Your task to perform on an android device: Add usb-c to the cart on walmart, then select checkout. Image 0: 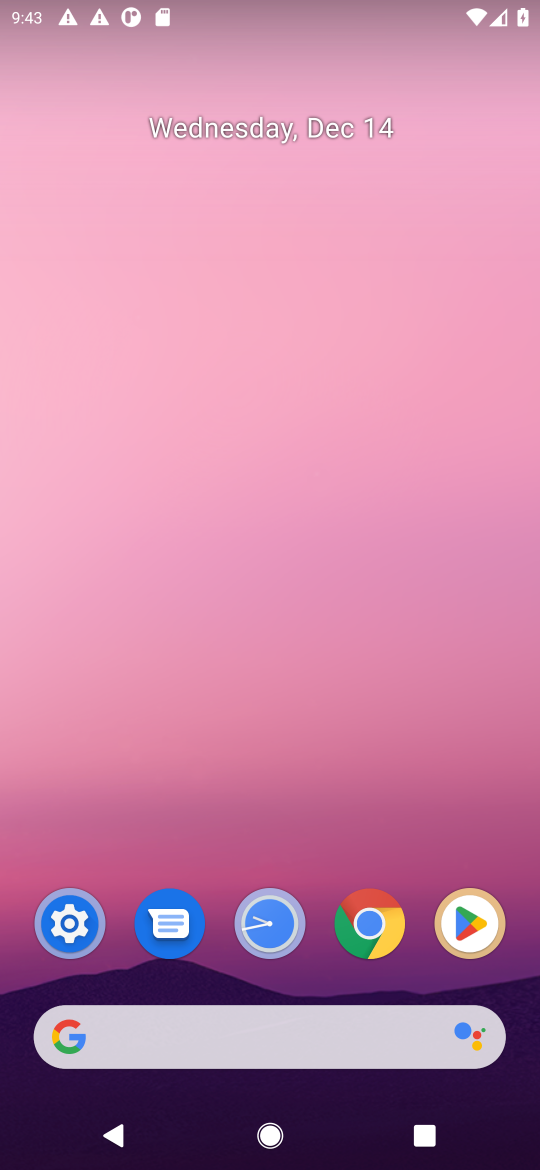
Step 0: click (368, 934)
Your task to perform on an android device: Add usb-c to the cart on walmart, then select checkout. Image 1: 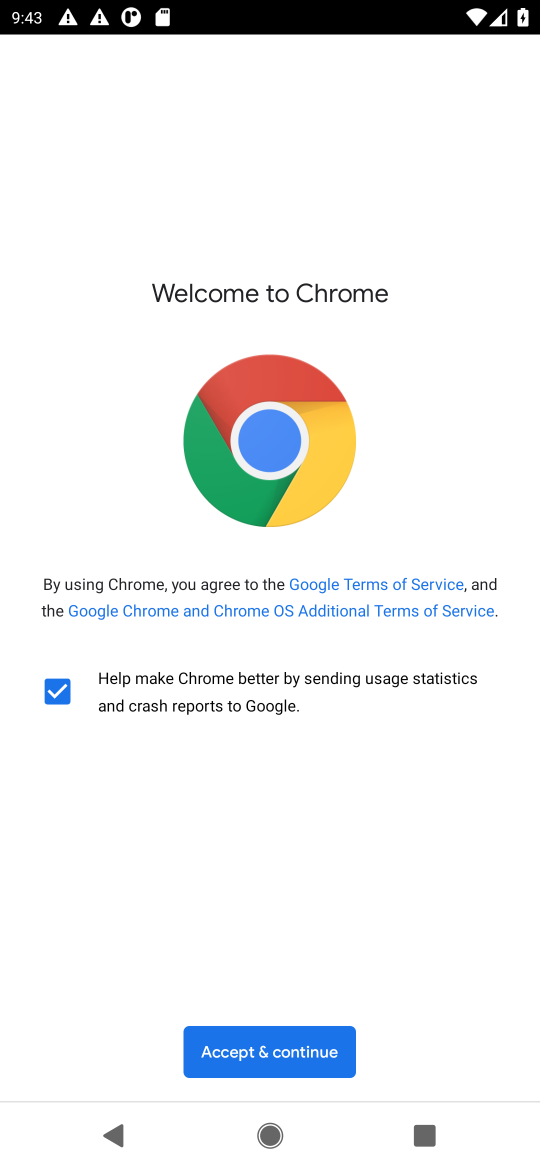
Step 1: click (226, 1065)
Your task to perform on an android device: Add usb-c to the cart on walmart, then select checkout. Image 2: 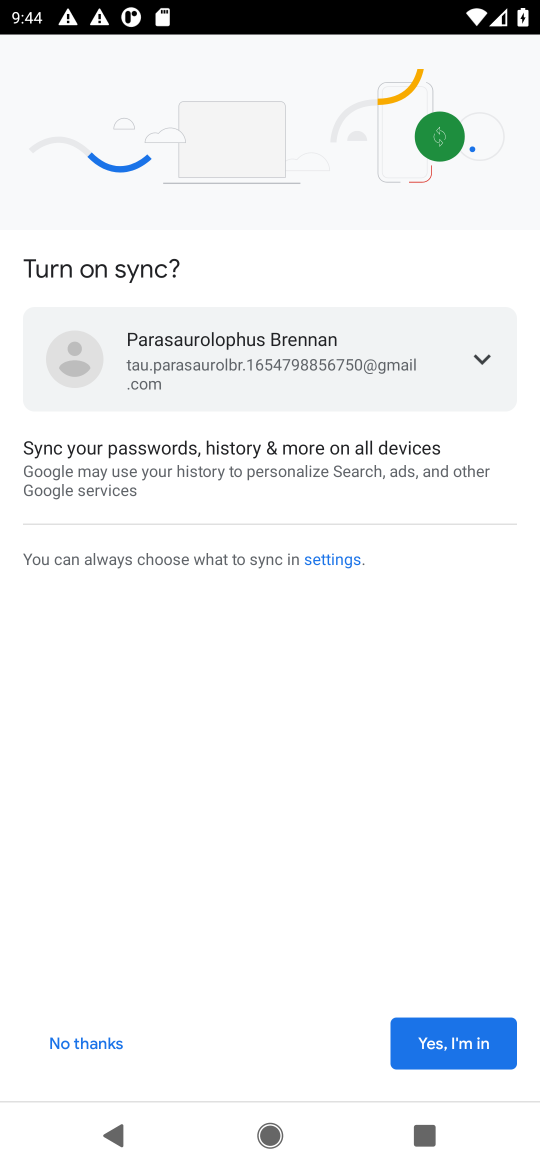
Step 2: click (102, 1040)
Your task to perform on an android device: Add usb-c to the cart on walmart, then select checkout. Image 3: 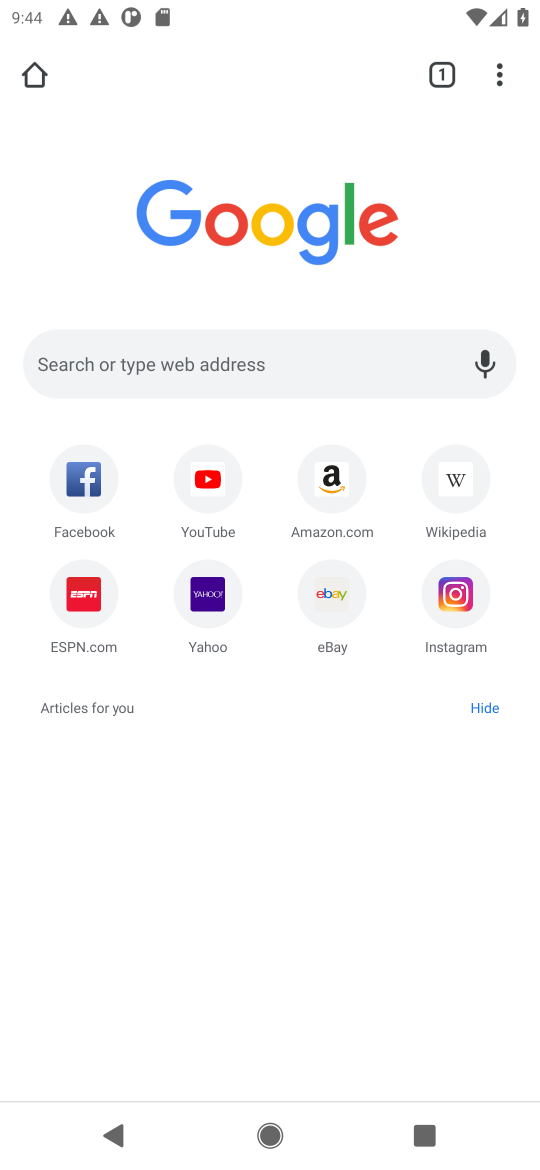
Step 3: click (195, 366)
Your task to perform on an android device: Add usb-c to the cart on walmart, then select checkout. Image 4: 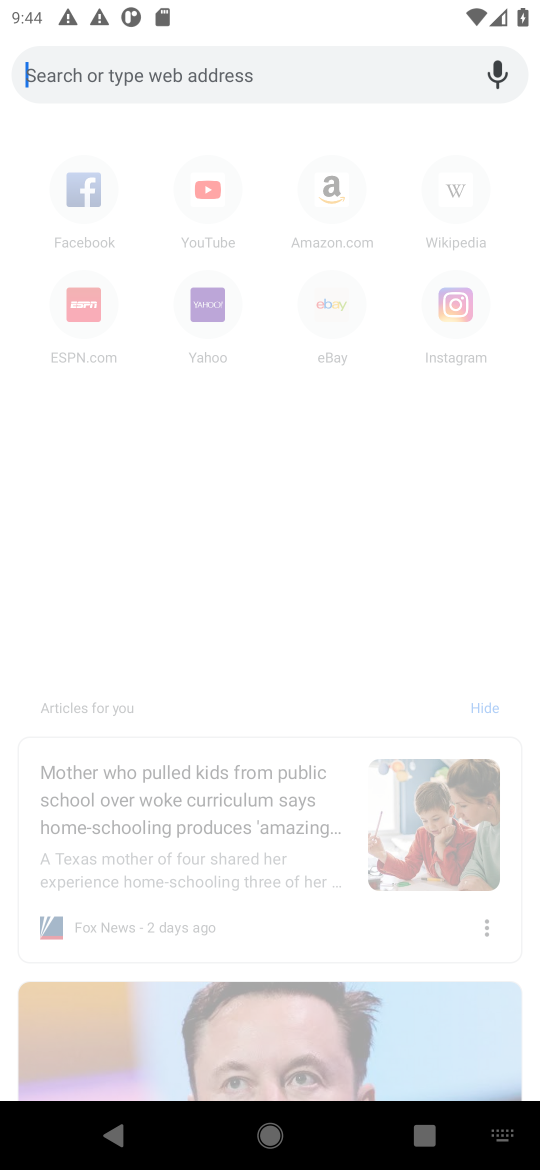
Step 4: type "walmart.com"
Your task to perform on an android device: Add usb-c to the cart on walmart, then select checkout. Image 5: 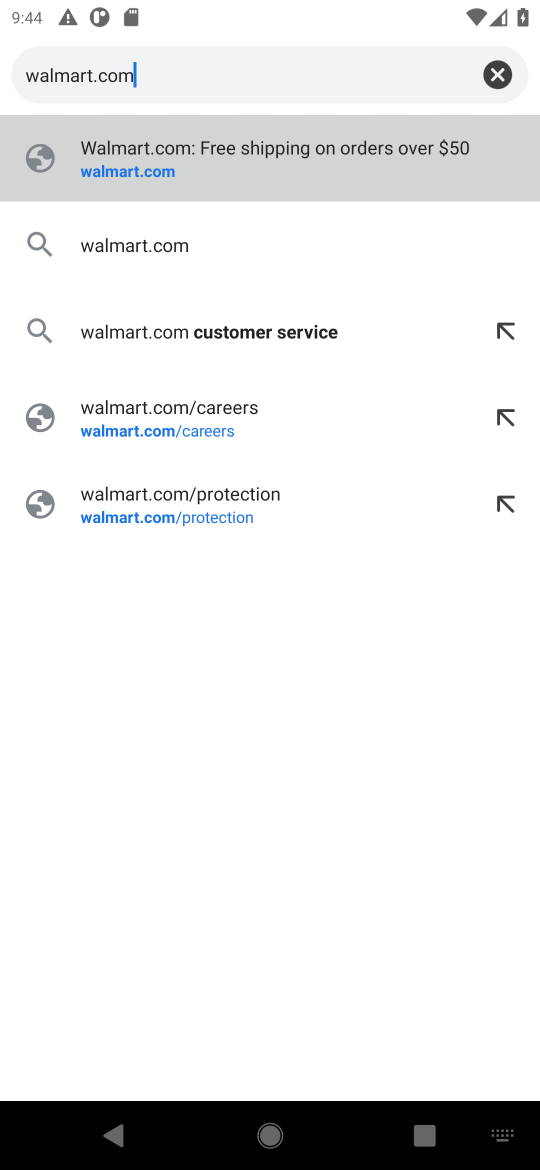
Step 5: click (152, 159)
Your task to perform on an android device: Add usb-c to the cart on walmart, then select checkout. Image 6: 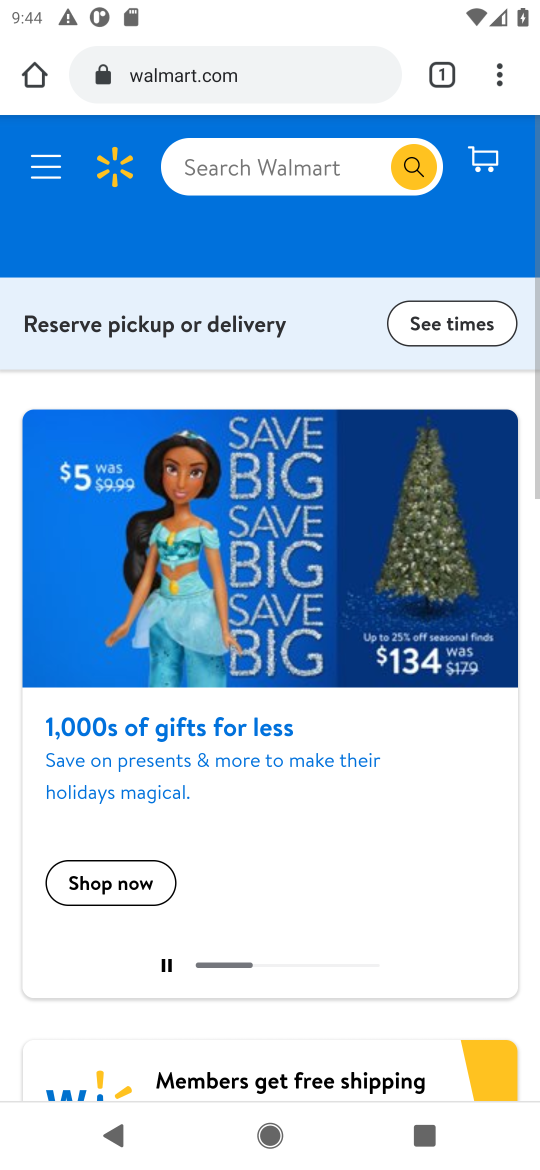
Step 6: click (212, 168)
Your task to perform on an android device: Add usb-c to the cart on walmart, then select checkout. Image 7: 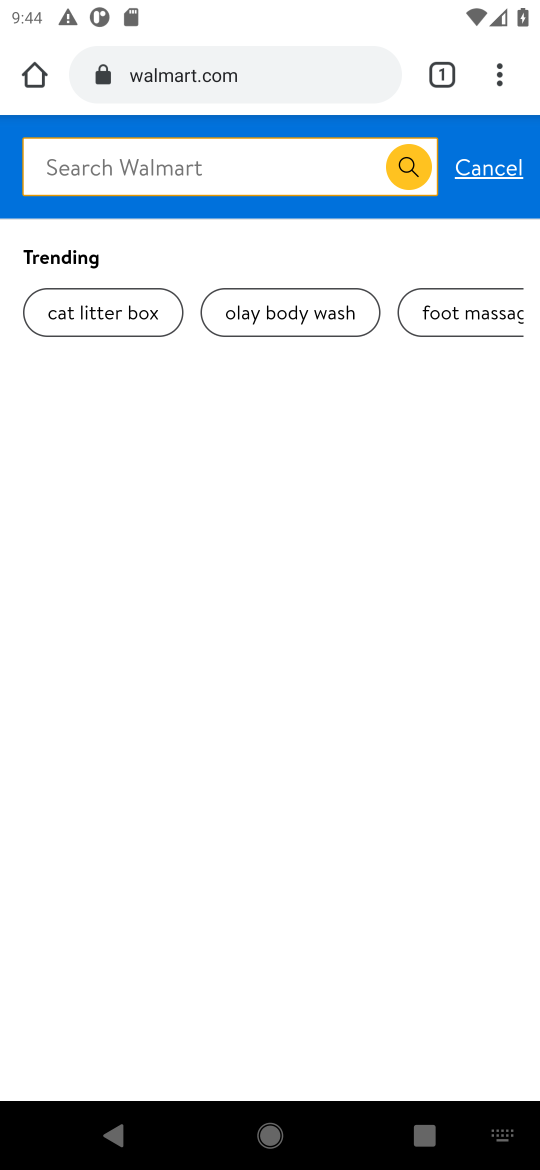
Step 7: click (188, 174)
Your task to perform on an android device: Add usb-c to the cart on walmart, then select checkout. Image 8: 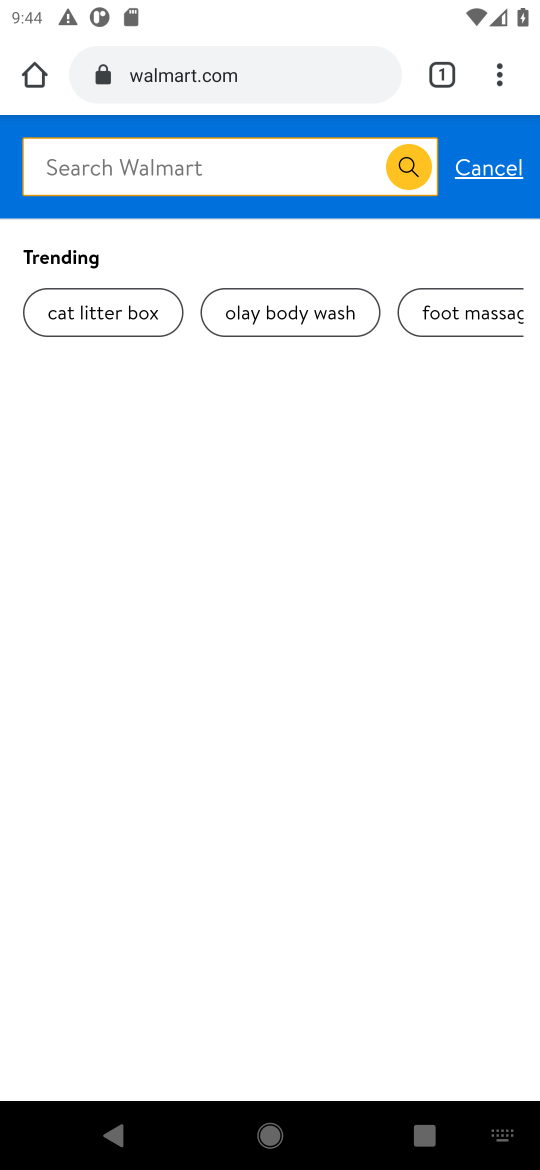
Step 8: type "usb-c"
Your task to perform on an android device: Add usb-c to the cart on walmart, then select checkout. Image 9: 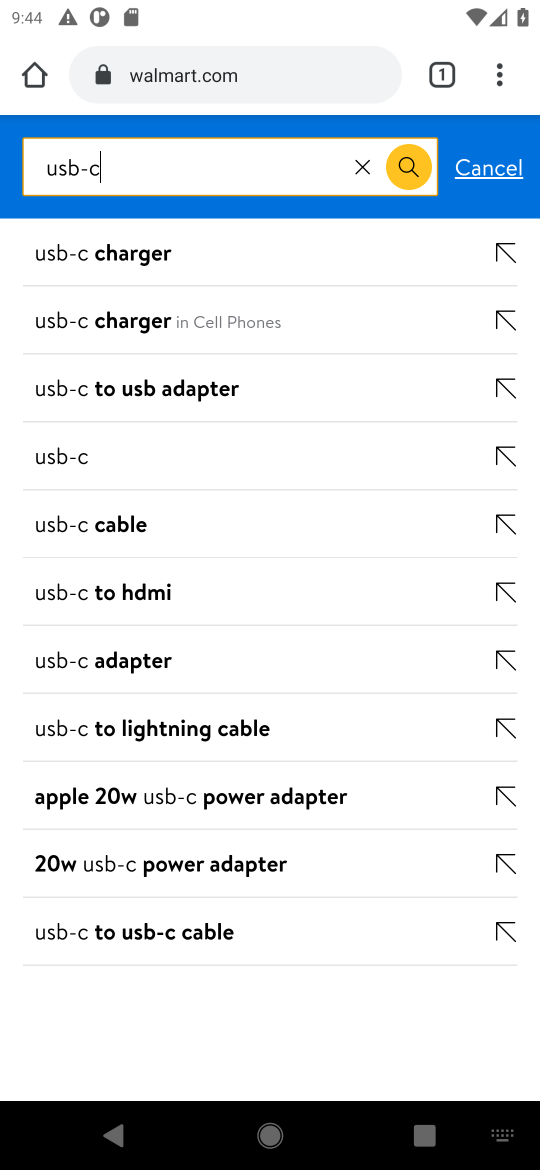
Step 9: click (112, 272)
Your task to perform on an android device: Add usb-c to the cart on walmart, then select checkout. Image 10: 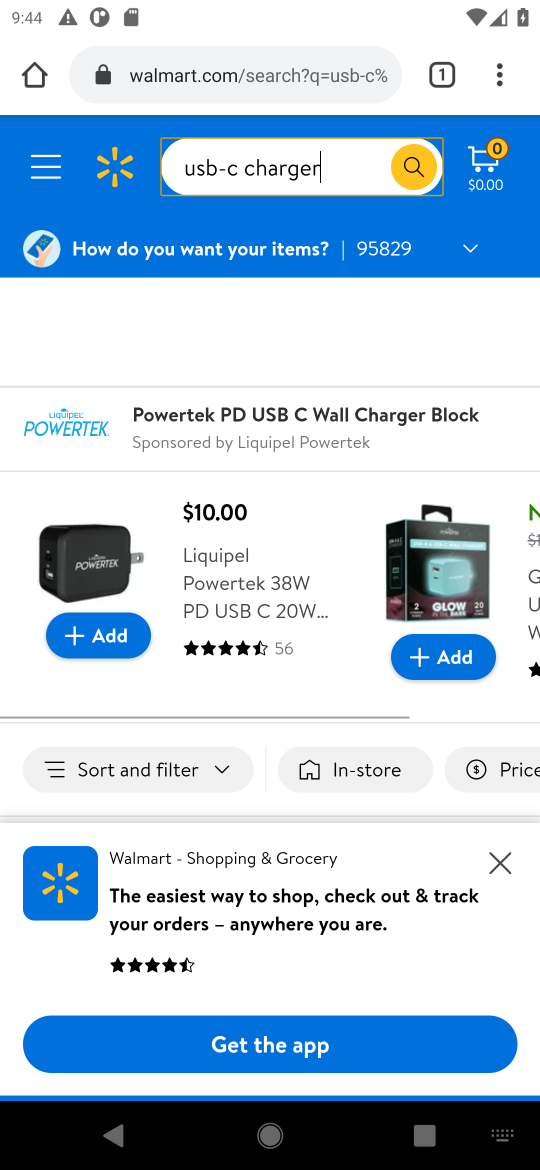
Step 10: drag from (176, 676) to (250, 328)
Your task to perform on an android device: Add usb-c to the cart on walmart, then select checkout. Image 11: 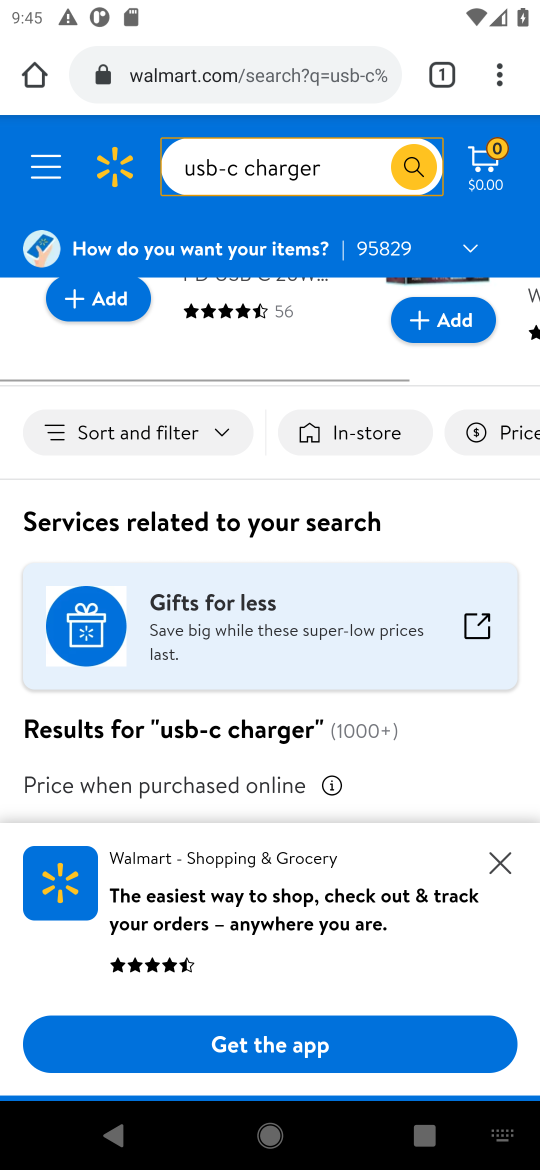
Step 11: click (506, 869)
Your task to perform on an android device: Add usb-c to the cart on walmart, then select checkout. Image 12: 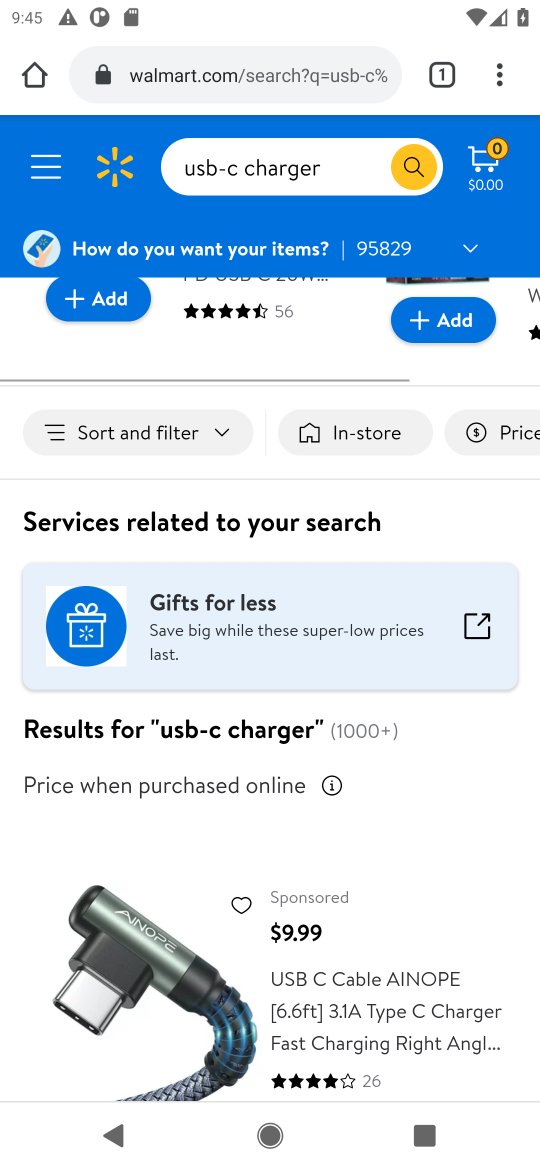
Step 12: drag from (241, 894) to (289, 564)
Your task to perform on an android device: Add usb-c to the cart on walmart, then select checkout. Image 13: 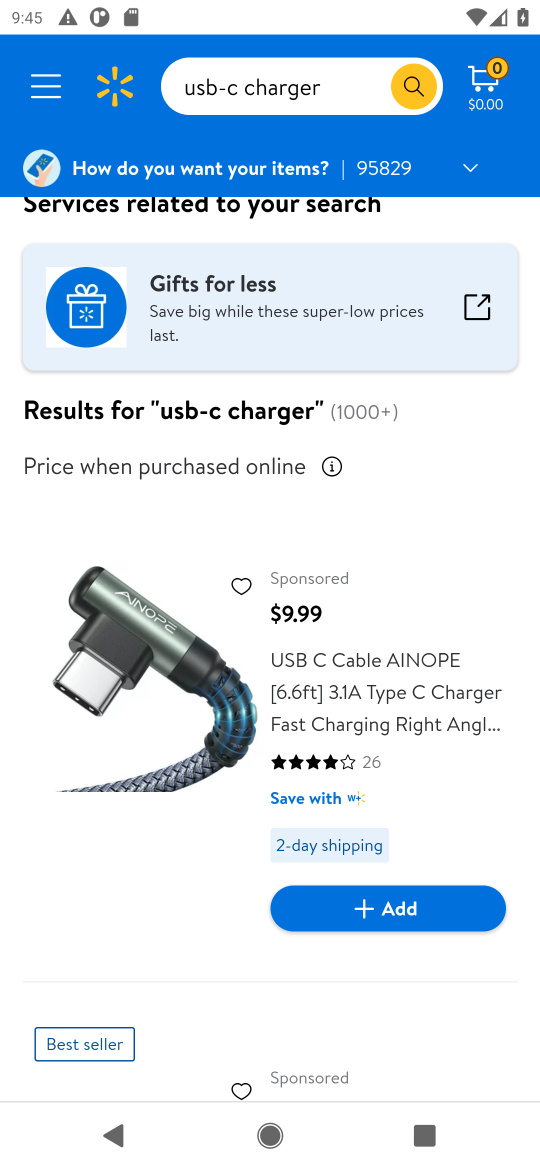
Step 13: click (391, 915)
Your task to perform on an android device: Add usb-c to the cart on walmart, then select checkout. Image 14: 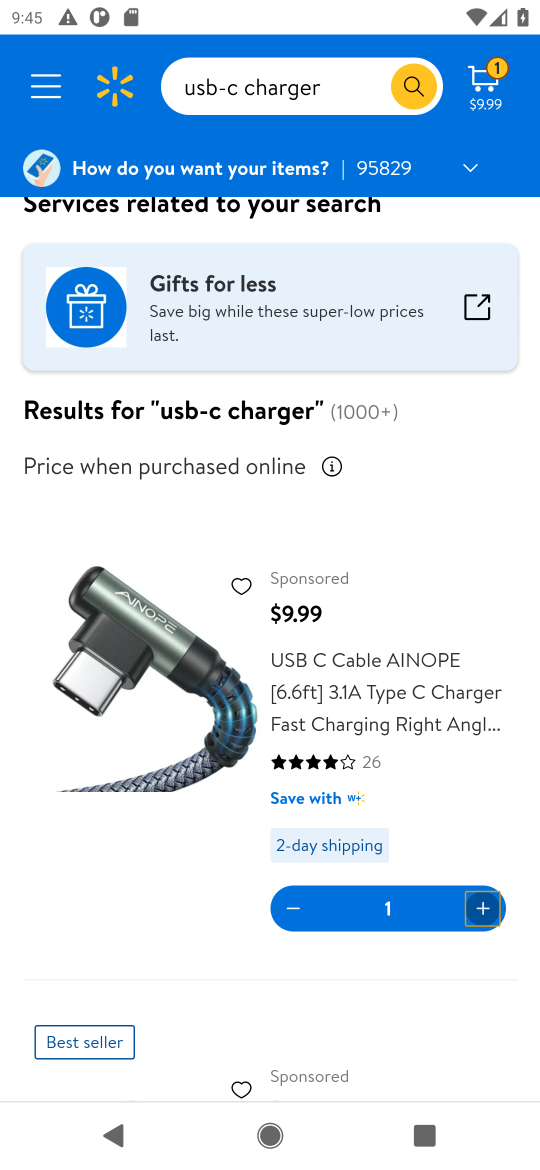
Step 14: click (482, 90)
Your task to perform on an android device: Add usb-c to the cart on walmart, then select checkout. Image 15: 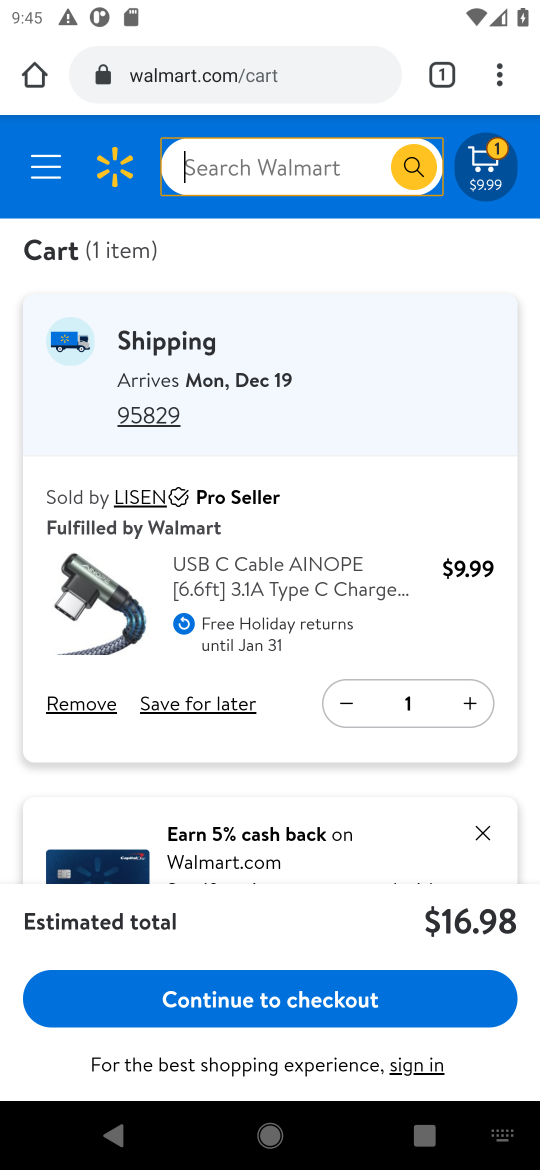
Step 15: click (244, 990)
Your task to perform on an android device: Add usb-c to the cart on walmart, then select checkout. Image 16: 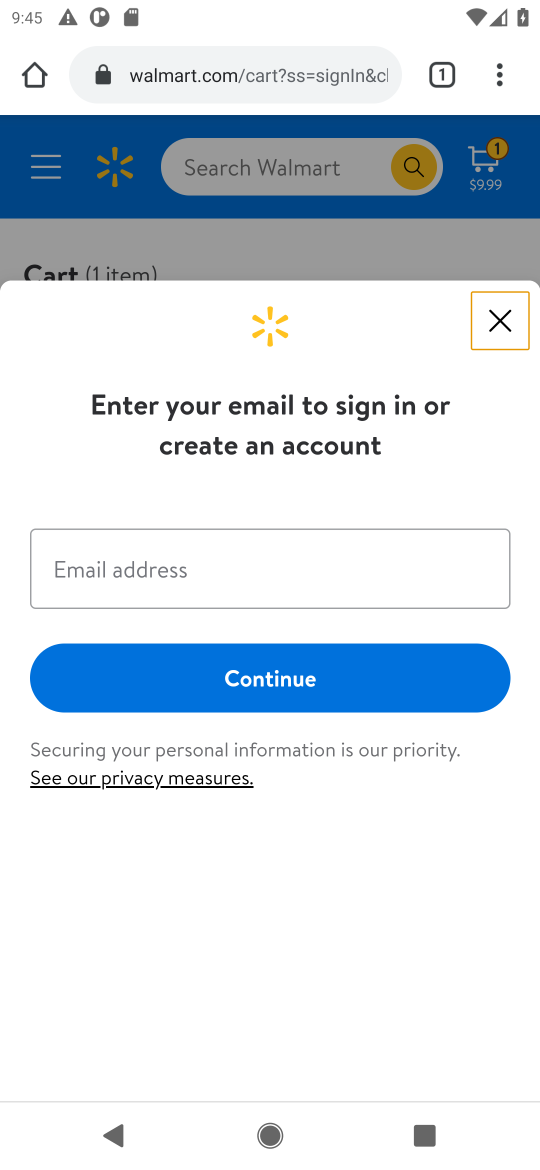
Step 16: task complete